Your task to perform on an android device: toggle javascript in the chrome app Image 0: 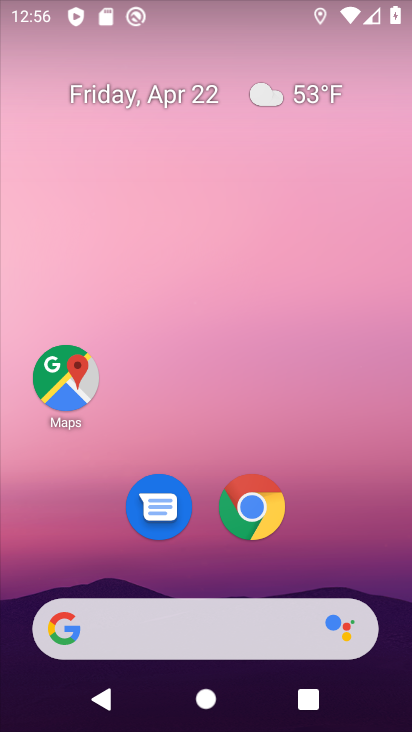
Step 0: press home button
Your task to perform on an android device: toggle javascript in the chrome app Image 1: 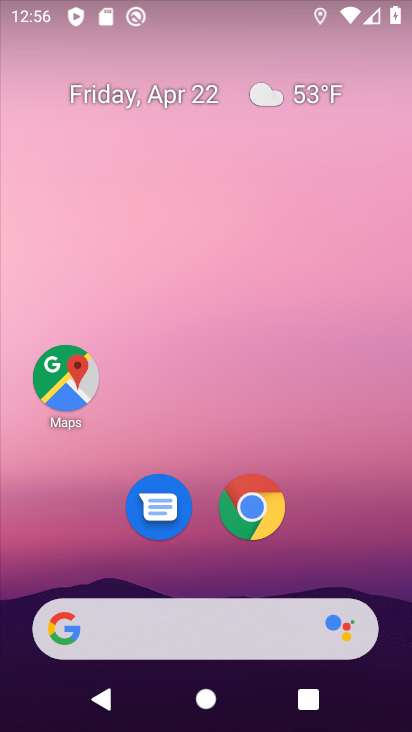
Step 1: click (262, 519)
Your task to perform on an android device: toggle javascript in the chrome app Image 2: 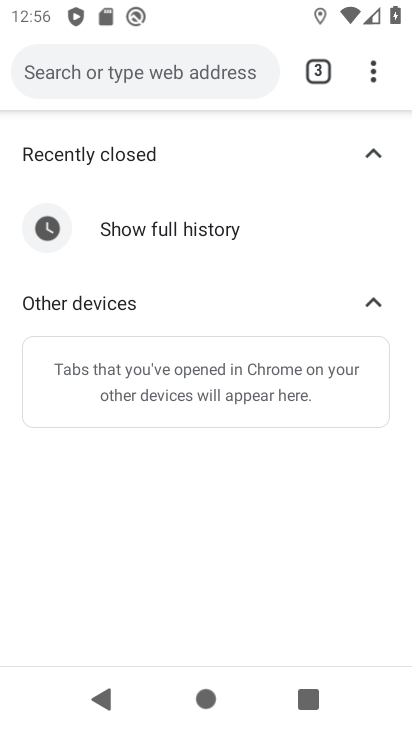
Step 2: drag from (373, 72) to (139, 501)
Your task to perform on an android device: toggle javascript in the chrome app Image 3: 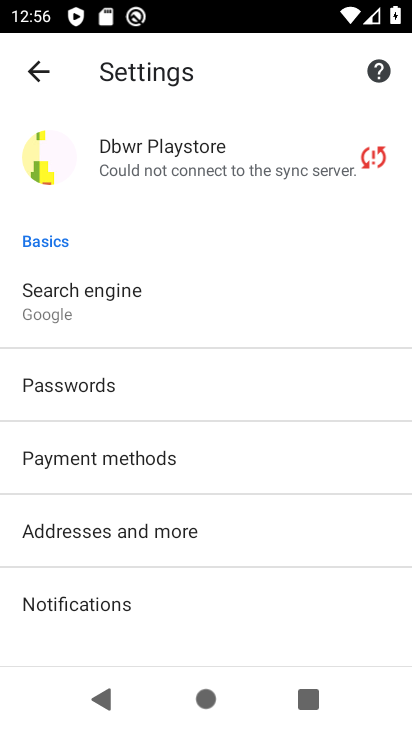
Step 3: drag from (191, 572) to (186, 226)
Your task to perform on an android device: toggle javascript in the chrome app Image 4: 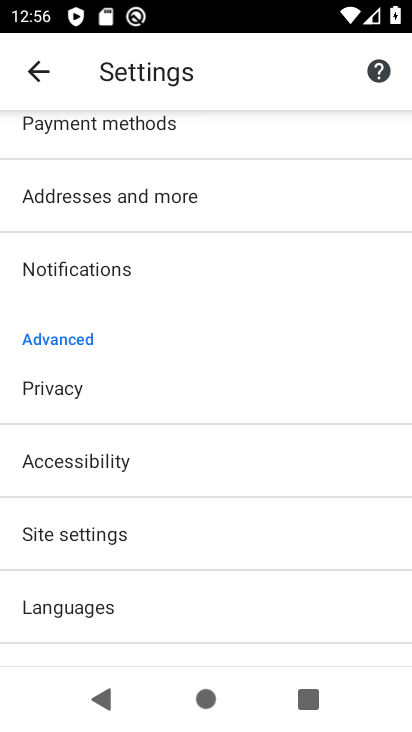
Step 4: click (85, 527)
Your task to perform on an android device: toggle javascript in the chrome app Image 5: 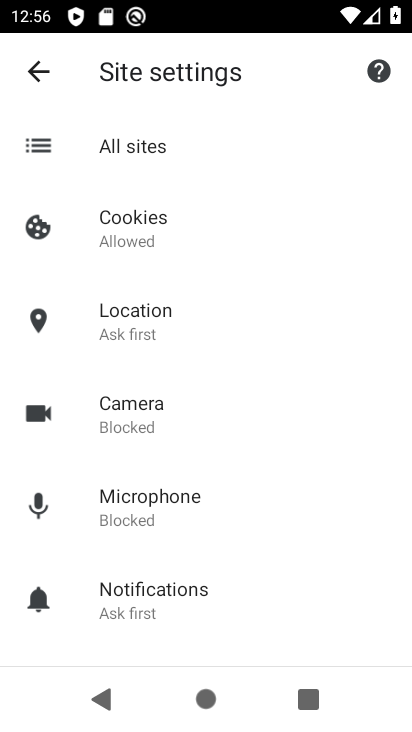
Step 5: drag from (227, 556) to (190, 246)
Your task to perform on an android device: toggle javascript in the chrome app Image 6: 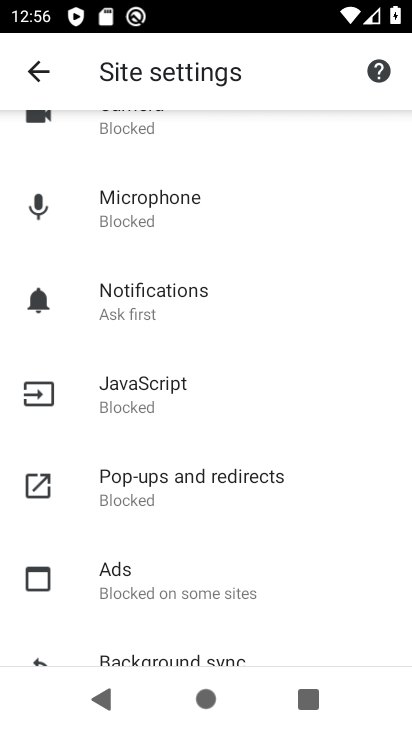
Step 6: click (142, 390)
Your task to perform on an android device: toggle javascript in the chrome app Image 7: 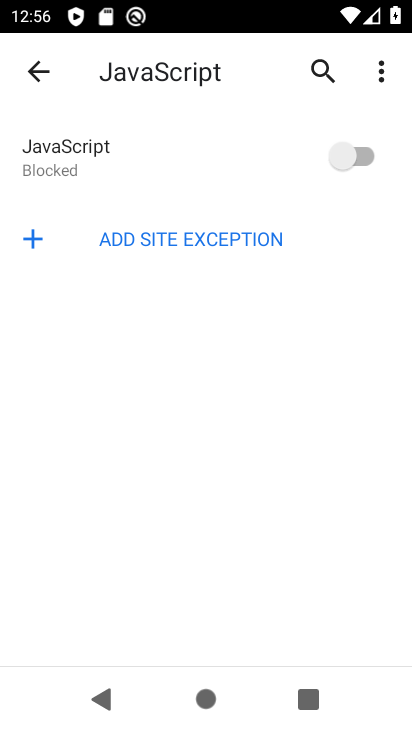
Step 7: click (350, 158)
Your task to perform on an android device: toggle javascript in the chrome app Image 8: 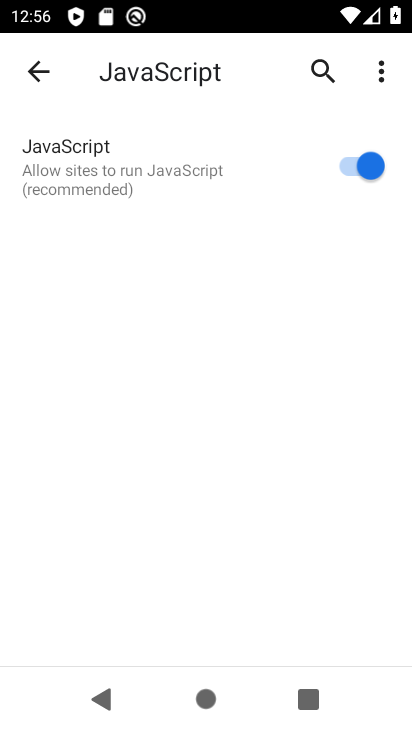
Step 8: task complete